Your task to perform on an android device: Go to privacy settings Image 0: 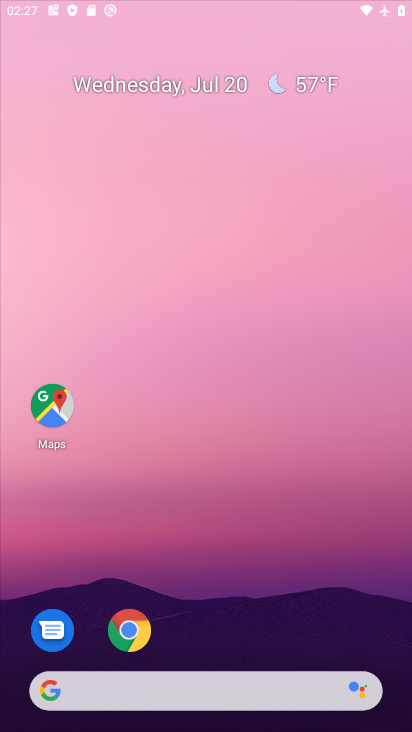
Step 0: drag from (311, 553) to (273, 131)
Your task to perform on an android device: Go to privacy settings Image 1: 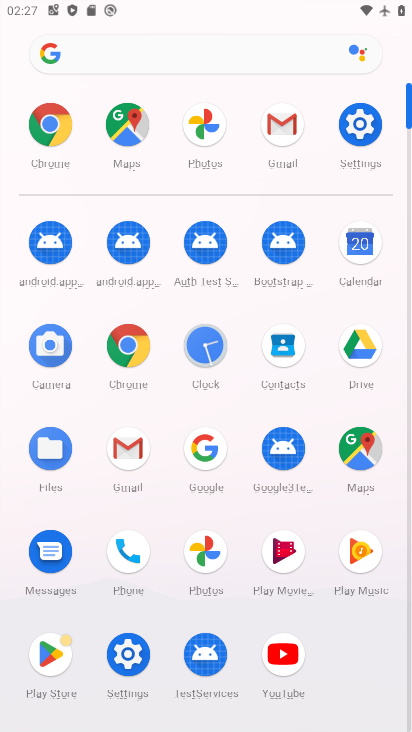
Step 1: click (353, 131)
Your task to perform on an android device: Go to privacy settings Image 2: 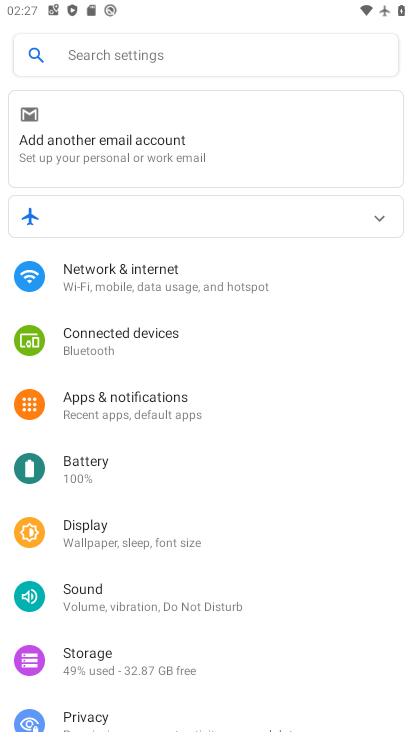
Step 2: drag from (211, 604) to (195, 151)
Your task to perform on an android device: Go to privacy settings Image 3: 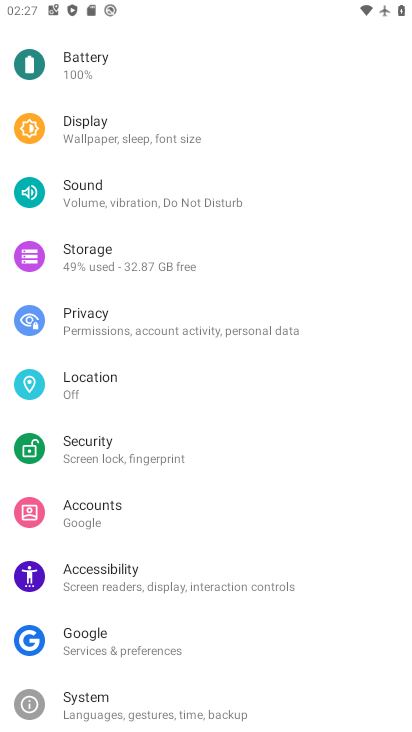
Step 3: drag from (164, 582) to (241, 179)
Your task to perform on an android device: Go to privacy settings Image 4: 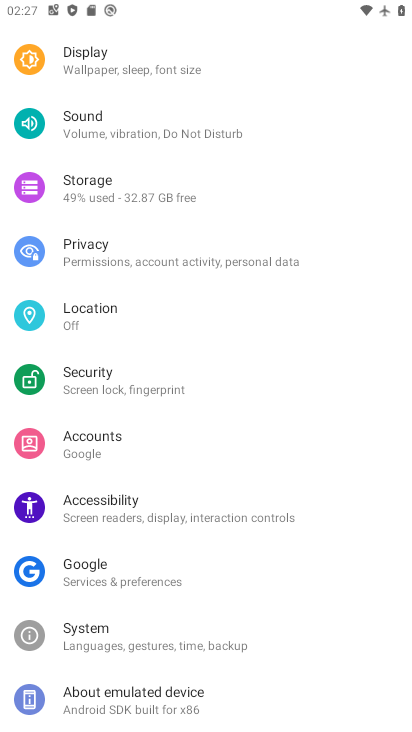
Step 4: drag from (254, 199) to (304, 399)
Your task to perform on an android device: Go to privacy settings Image 5: 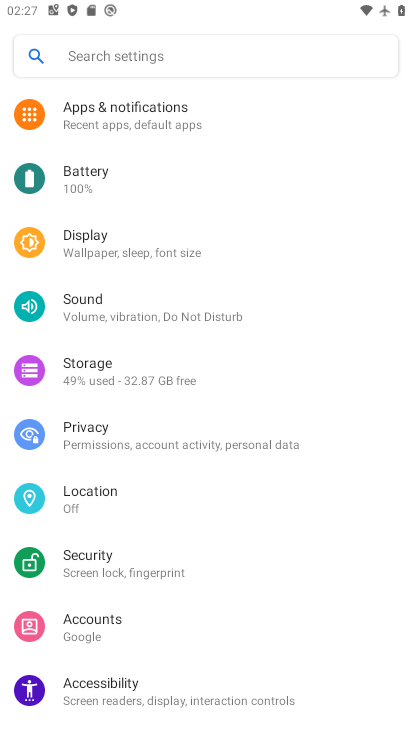
Step 5: click (135, 431)
Your task to perform on an android device: Go to privacy settings Image 6: 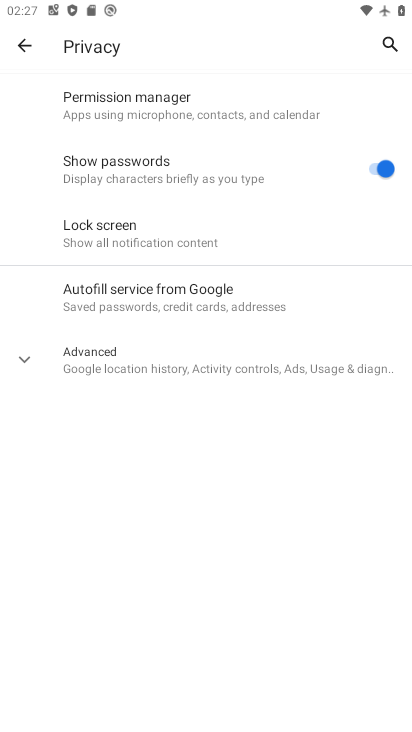
Step 6: task complete